Your task to perform on an android device: Go to CNN.com Image 0: 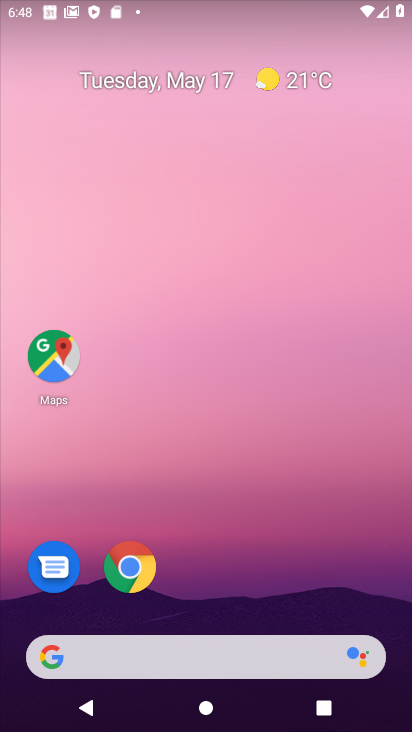
Step 0: click (129, 564)
Your task to perform on an android device: Go to CNN.com Image 1: 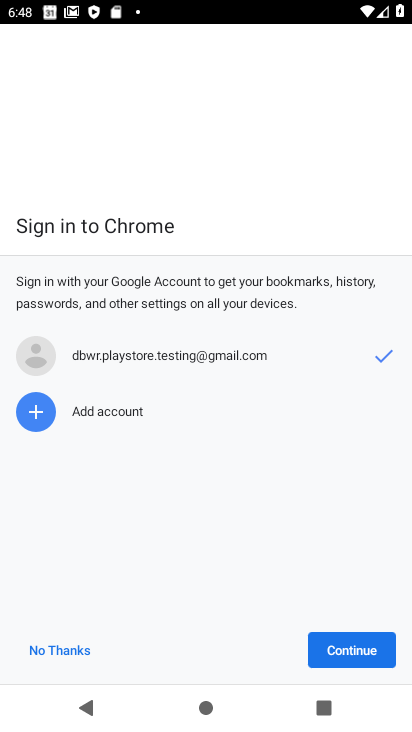
Step 1: click (331, 650)
Your task to perform on an android device: Go to CNN.com Image 2: 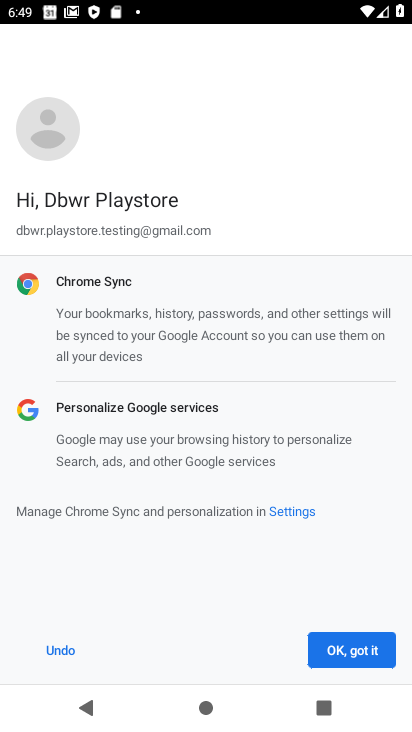
Step 2: click (331, 650)
Your task to perform on an android device: Go to CNN.com Image 3: 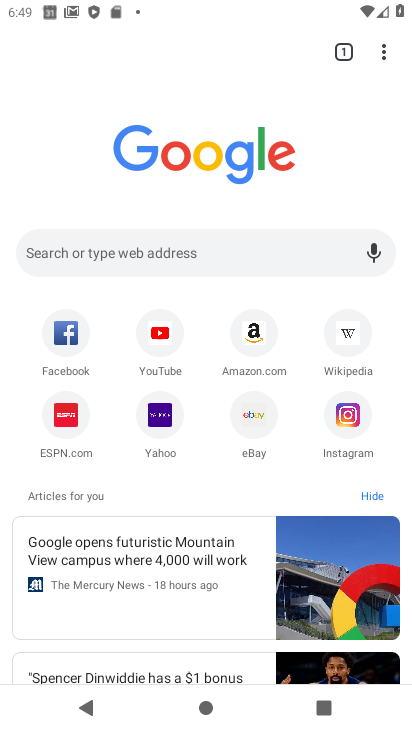
Step 3: click (200, 255)
Your task to perform on an android device: Go to CNN.com Image 4: 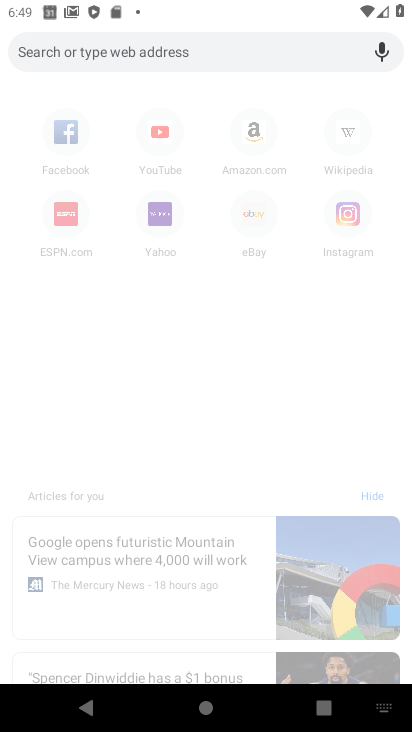
Step 4: type "cnn.com"
Your task to perform on an android device: Go to CNN.com Image 5: 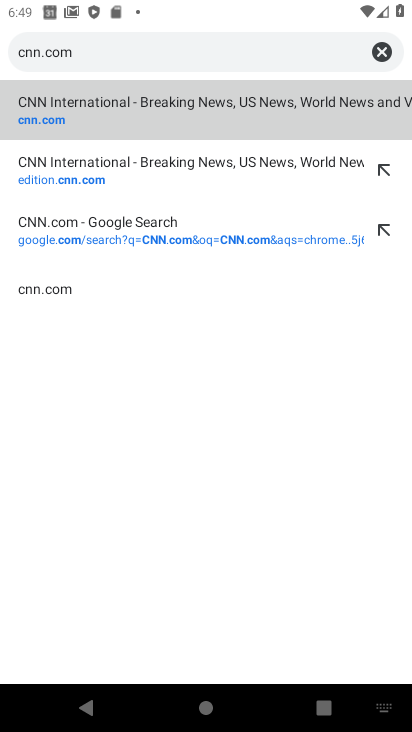
Step 5: click (172, 116)
Your task to perform on an android device: Go to CNN.com Image 6: 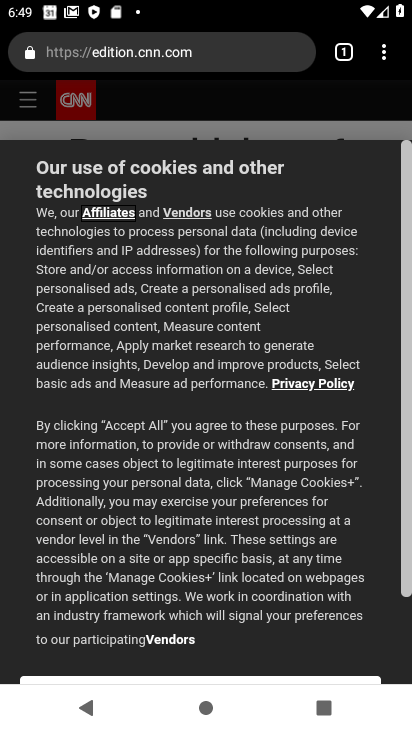
Step 6: task complete